Your task to perform on an android device: Open wifi settings Image 0: 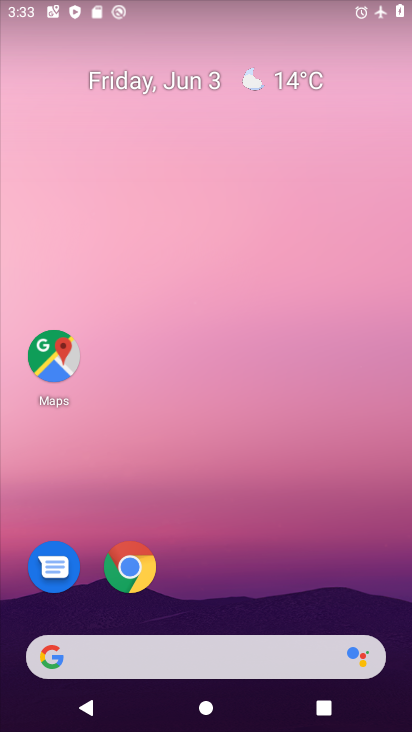
Step 0: drag from (303, 665) to (302, 14)
Your task to perform on an android device: Open wifi settings Image 1: 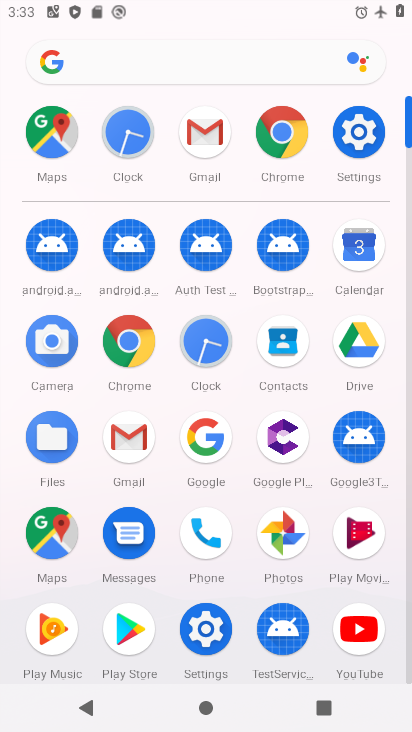
Step 1: click (359, 120)
Your task to perform on an android device: Open wifi settings Image 2: 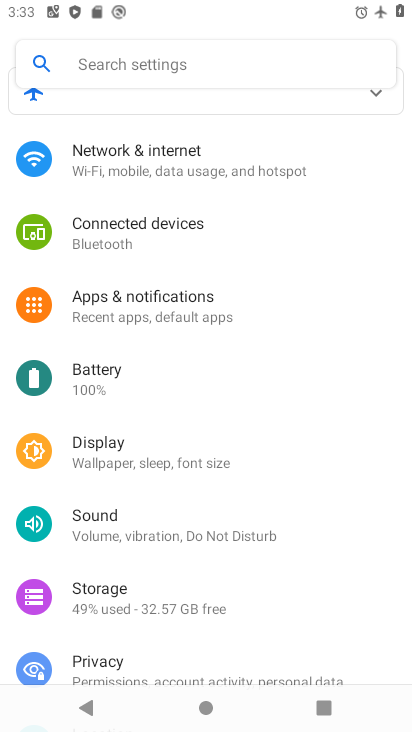
Step 2: click (161, 167)
Your task to perform on an android device: Open wifi settings Image 3: 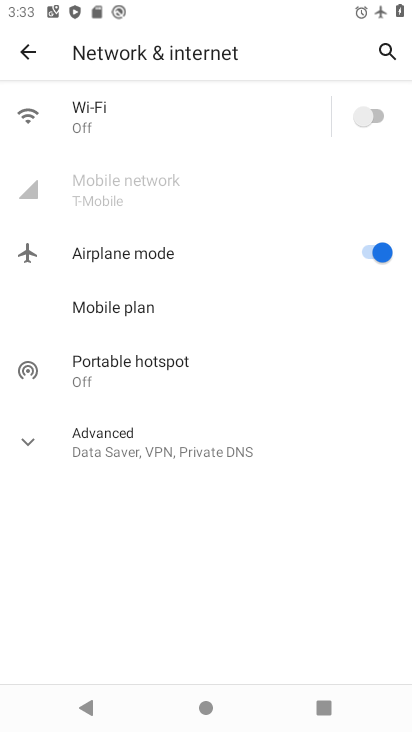
Step 3: click (148, 126)
Your task to perform on an android device: Open wifi settings Image 4: 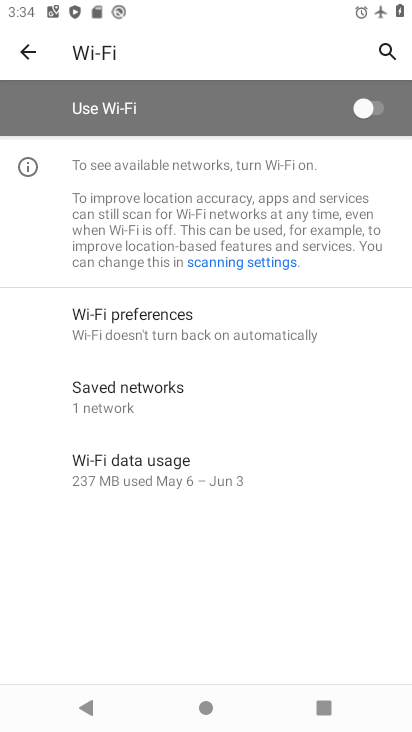
Step 4: task complete